Your task to perform on an android device: Do I have any events tomorrow? Image 0: 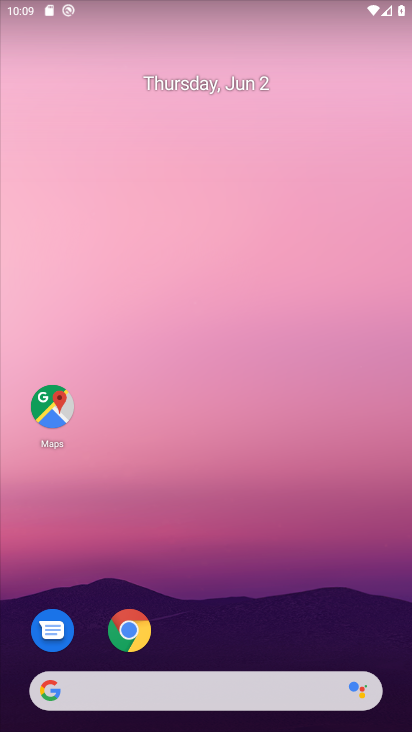
Step 0: drag from (273, 706) to (197, 84)
Your task to perform on an android device: Do I have any events tomorrow? Image 1: 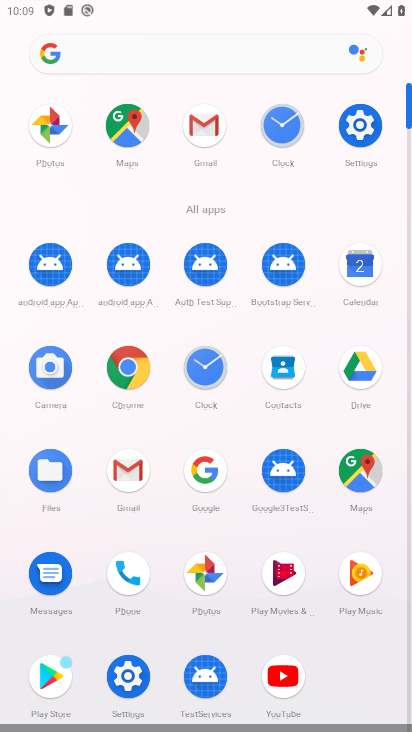
Step 1: drag from (254, 674) to (239, 132)
Your task to perform on an android device: Do I have any events tomorrow? Image 2: 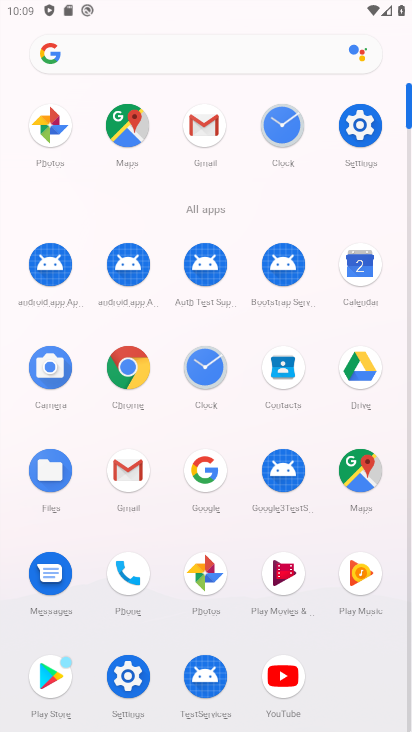
Step 2: click (362, 268)
Your task to perform on an android device: Do I have any events tomorrow? Image 3: 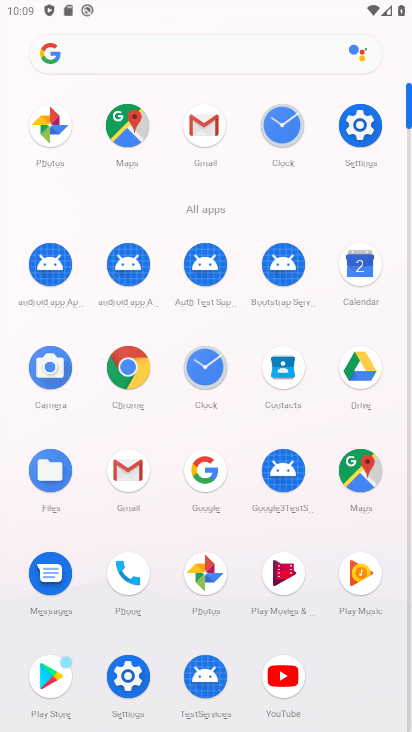
Step 3: click (363, 268)
Your task to perform on an android device: Do I have any events tomorrow? Image 4: 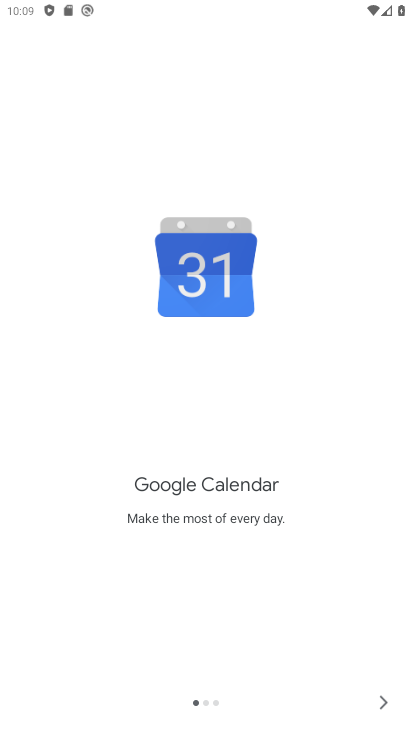
Step 4: click (383, 699)
Your task to perform on an android device: Do I have any events tomorrow? Image 5: 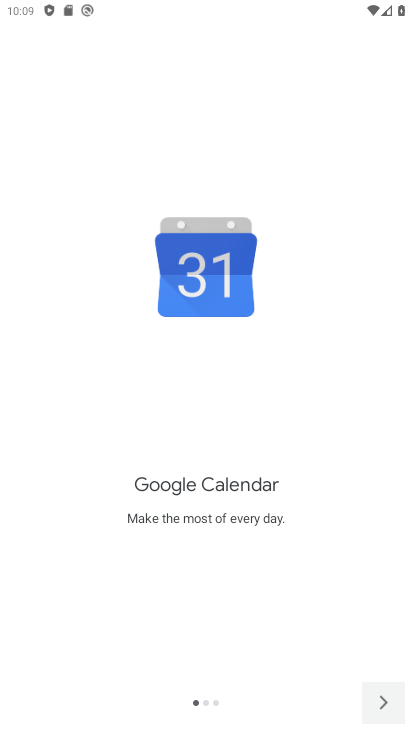
Step 5: click (382, 698)
Your task to perform on an android device: Do I have any events tomorrow? Image 6: 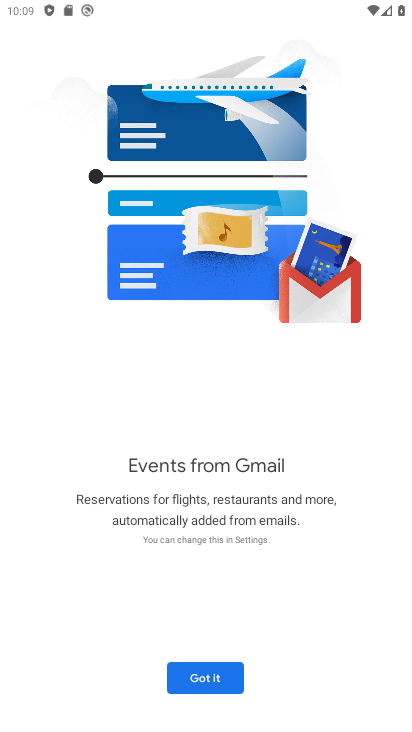
Step 6: click (381, 700)
Your task to perform on an android device: Do I have any events tomorrow? Image 7: 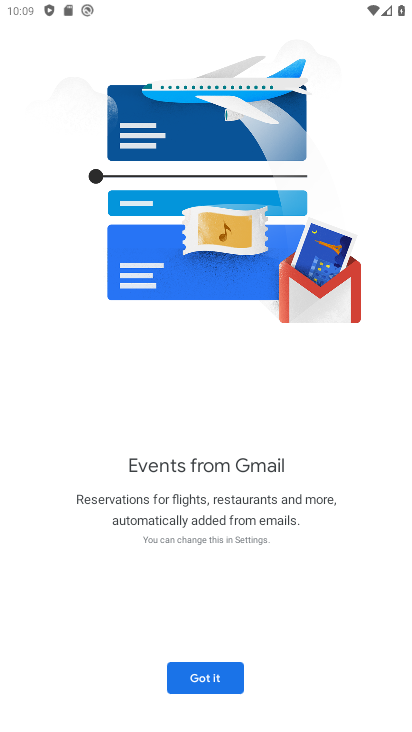
Step 7: click (365, 690)
Your task to perform on an android device: Do I have any events tomorrow? Image 8: 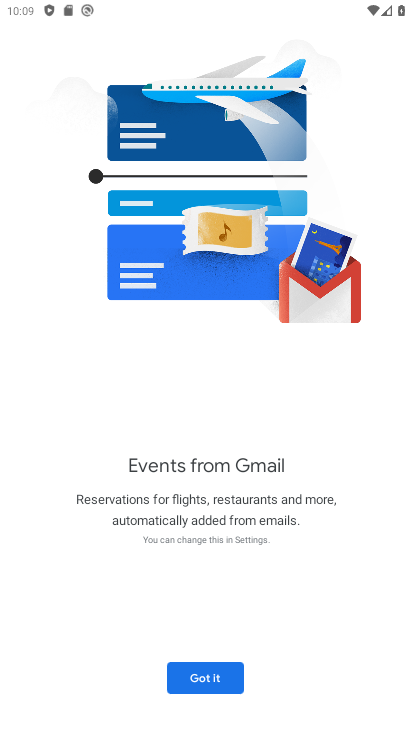
Step 8: click (365, 705)
Your task to perform on an android device: Do I have any events tomorrow? Image 9: 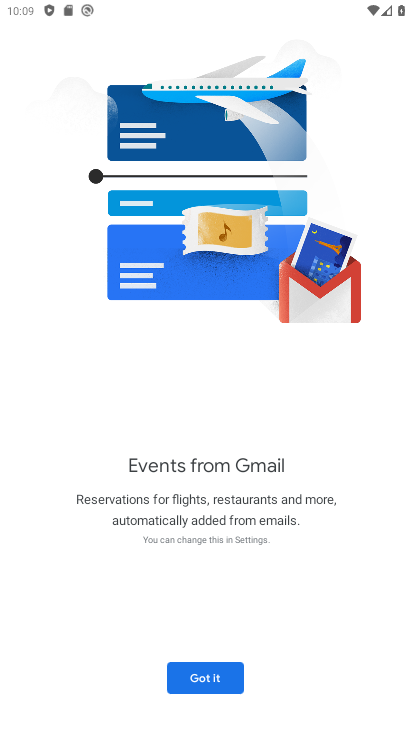
Step 9: click (201, 675)
Your task to perform on an android device: Do I have any events tomorrow? Image 10: 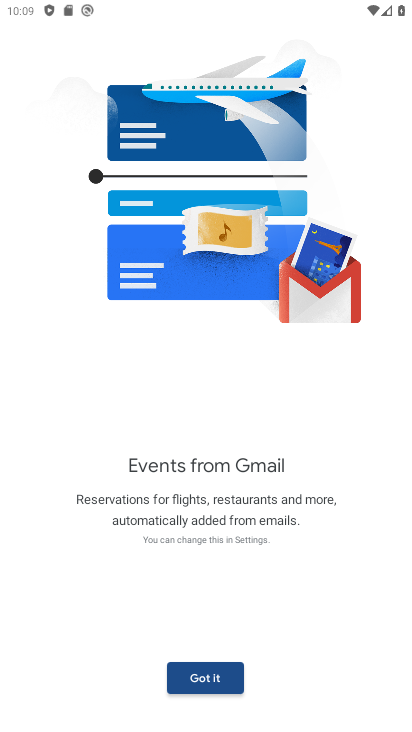
Step 10: click (199, 665)
Your task to perform on an android device: Do I have any events tomorrow? Image 11: 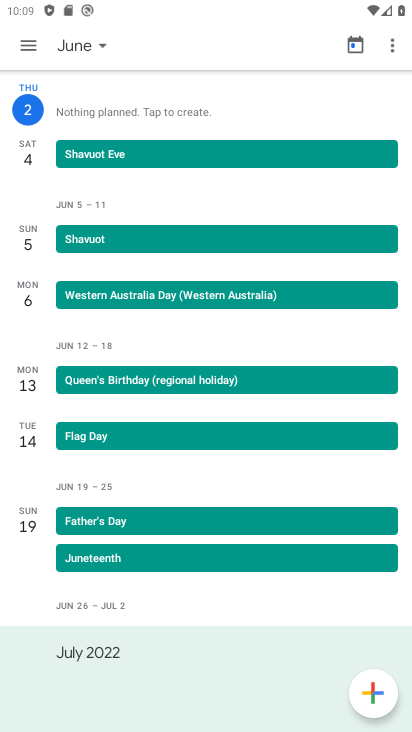
Step 11: click (99, 44)
Your task to perform on an android device: Do I have any events tomorrow? Image 12: 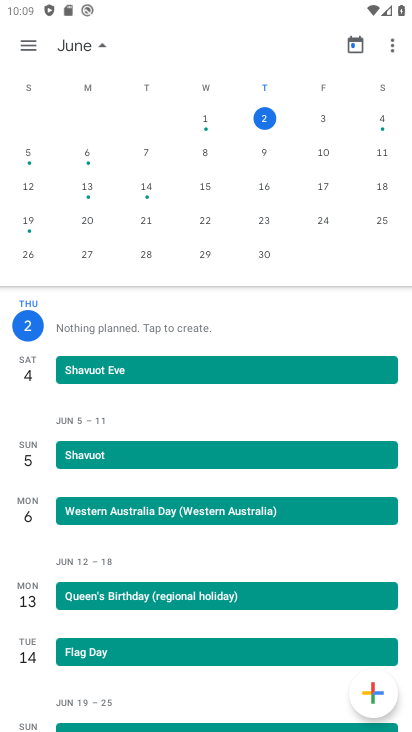
Step 12: click (99, 43)
Your task to perform on an android device: Do I have any events tomorrow? Image 13: 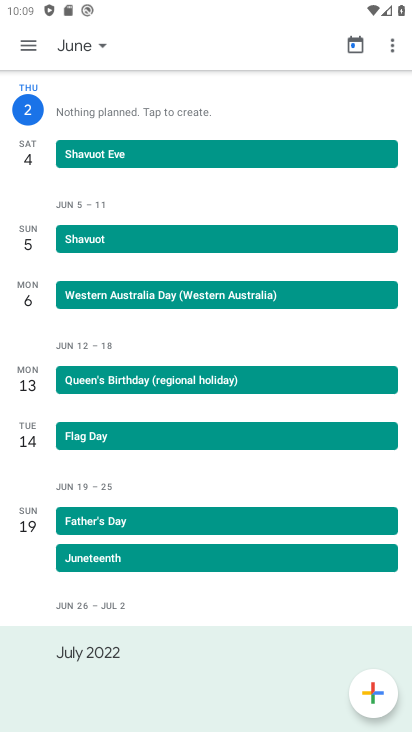
Step 13: click (102, 46)
Your task to perform on an android device: Do I have any events tomorrow? Image 14: 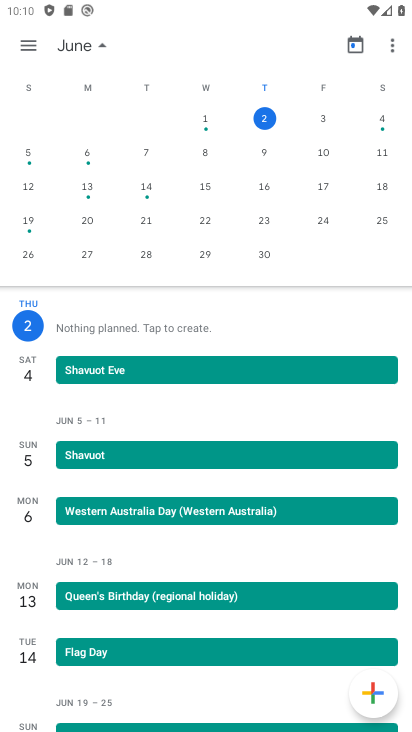
Step 14: click (381, 116)
Your task to perform on an android device: Do I have any events tomorrow? Image 15: 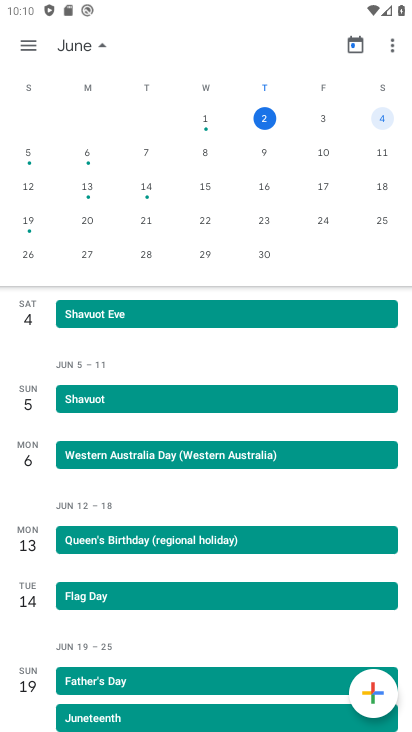
Step 15: click (381, 116)
Your task to perform on an android device: Do I have any events tomorrow? Image 16: 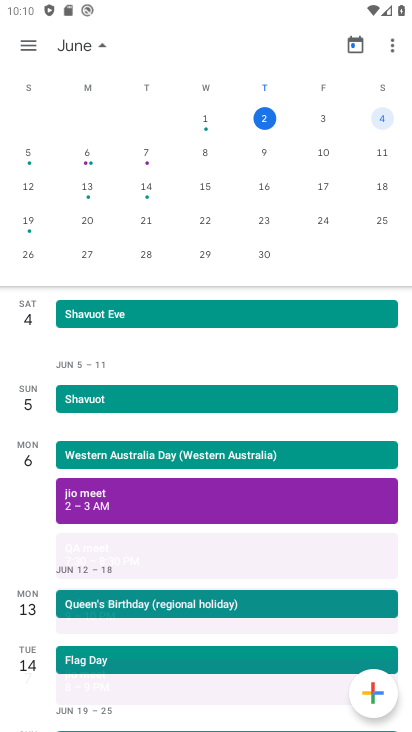
Step 16: click (391, 137)
Your task to perform on an android device: Do I have any events tomorrow? Image 17: 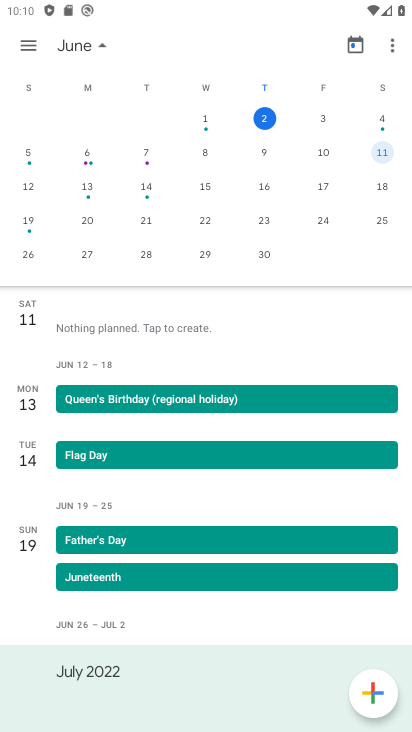
Step 17: drag from (377, 110) to (371, 156)
Your task to perform on an android device: Do I have any events tomorrow? Image 18: 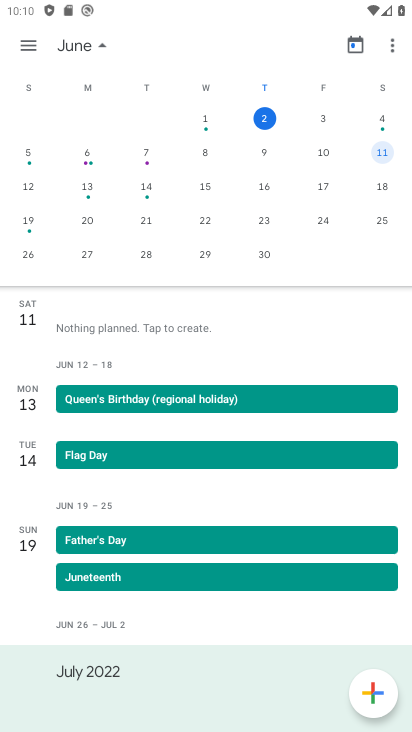
Step 18: click (363, 138)
Your task to perform on an android device: Do I have any events tomorrow? Image 19: 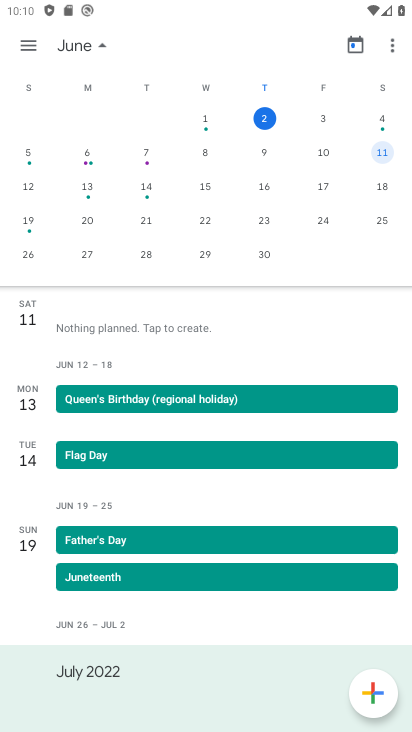
Step 19: click (364, 133)
Your task to perform on an android device: Do I have any events tomorrow? Image 20: 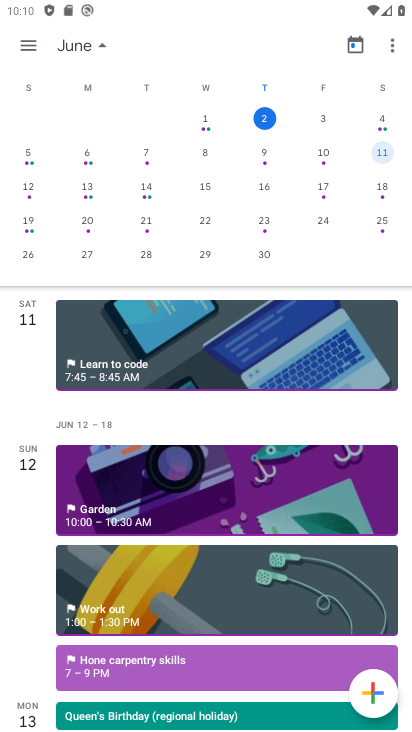
Step 20: click (375, 118)
Your task to perform on an android device: Do I have any events tomorrow? Image 21: 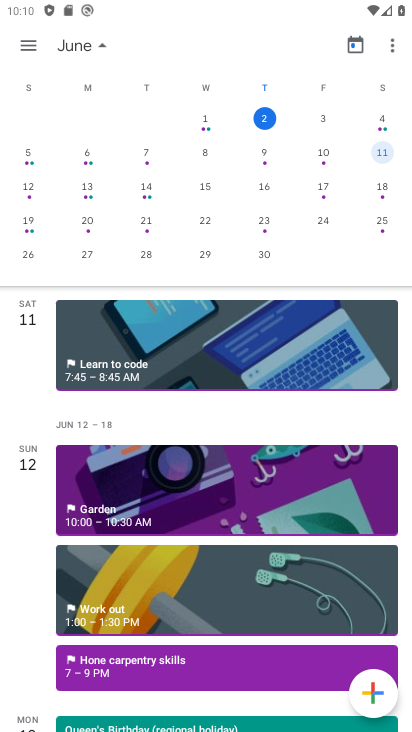
Step 21: click (379, 120)
Your task to perform on an android device: Do I have any events tomorrow? Image 22: 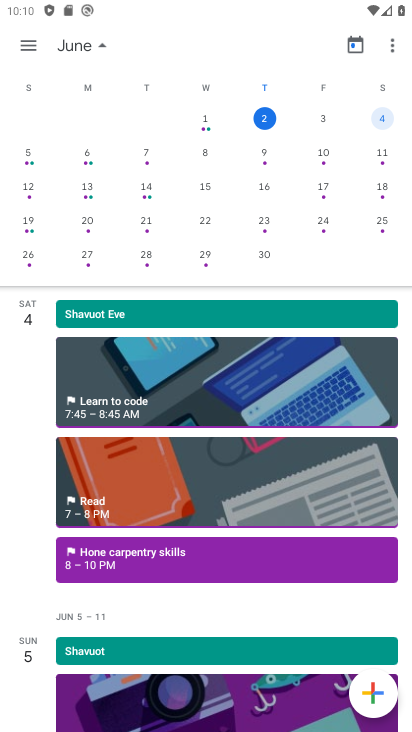
Step 22: click (386, 117)
Your task to perform on an android device: Do I have any events tomorrow? Image 23: 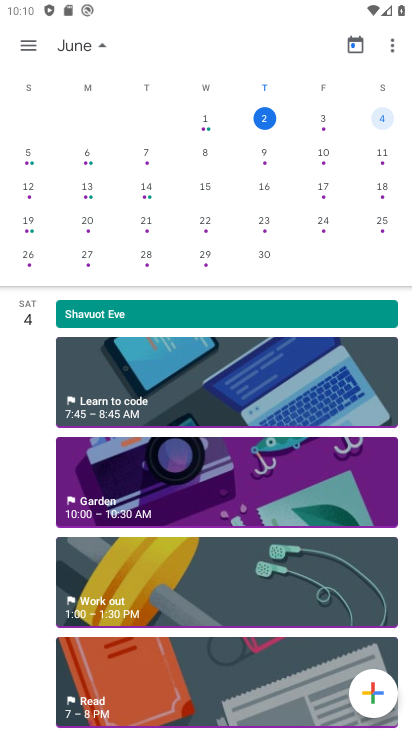
Step 23: task complete